Your task to perform on an android device: see sites visited before in the chrome app Image 0: 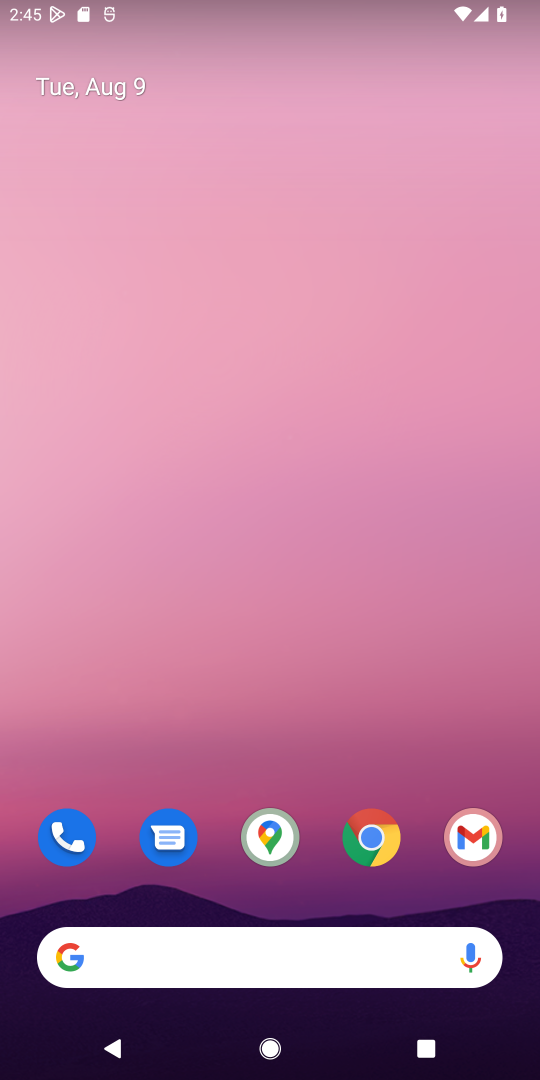
Step 0: drag from (300, 838) to (294, 356)
Your task to perform on an android device: see sites visited before in the chrome app Image 1: 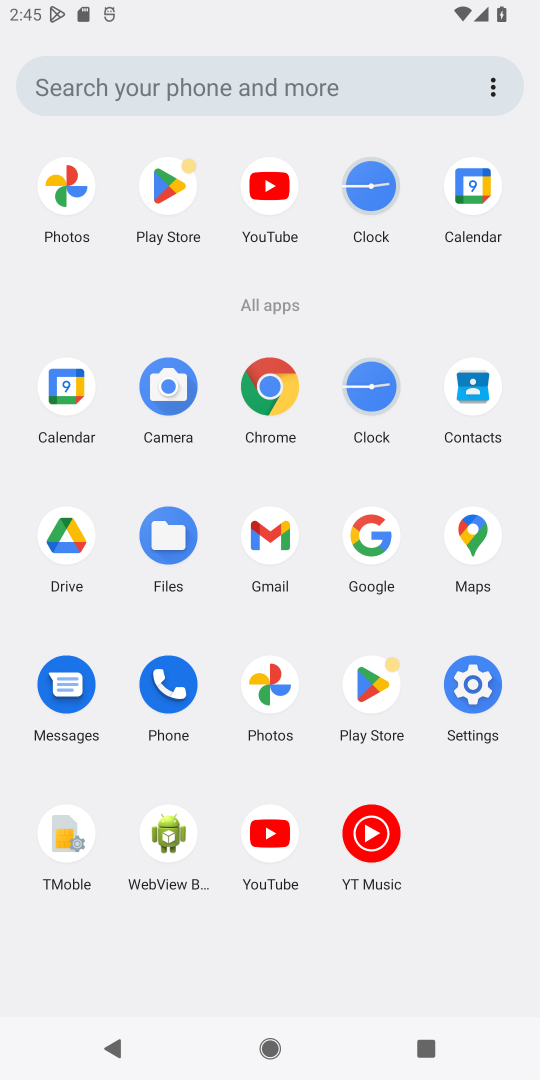
Step 1: click (267, 414)
Your task to perform on an android device: see sites visited before in the chrome app Image 2: 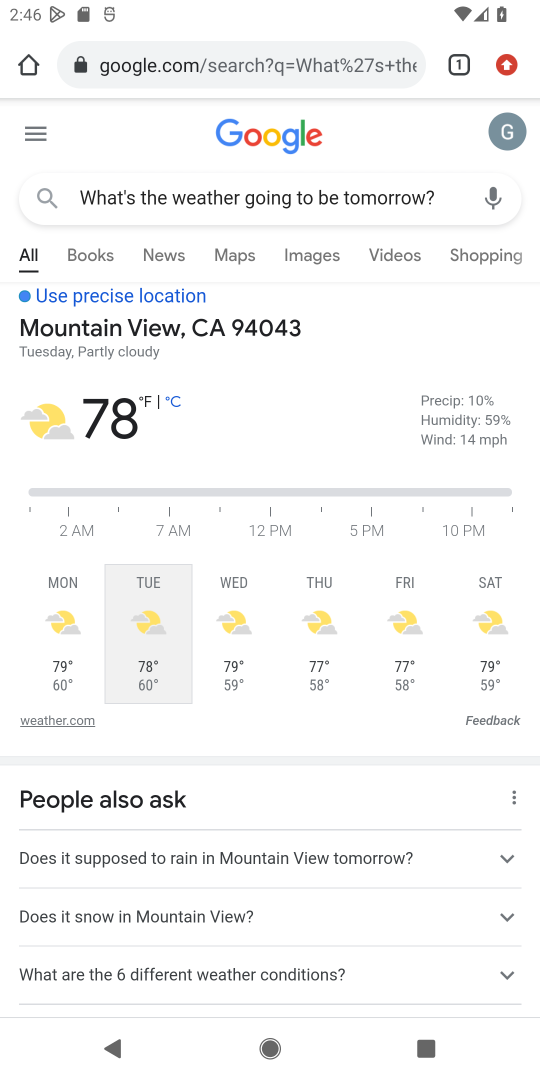
Step 2: click (505, 67)
Your task to perform on an android device: see sites visited before in the chrome app Image 3: 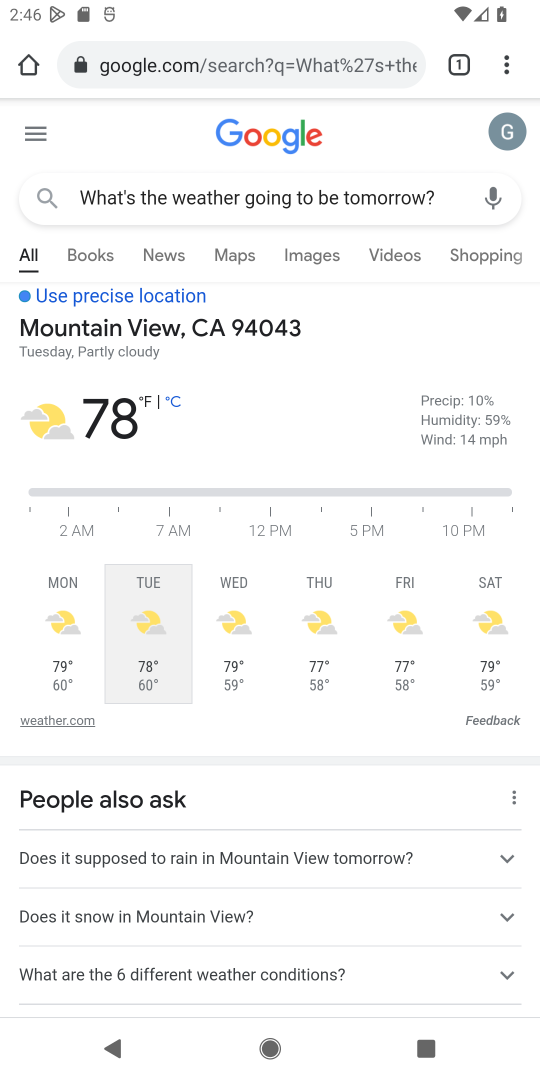
Step 3: click (505, 67)
Your task to perform on an android device: see sites visited before in the chrome app Image 4: 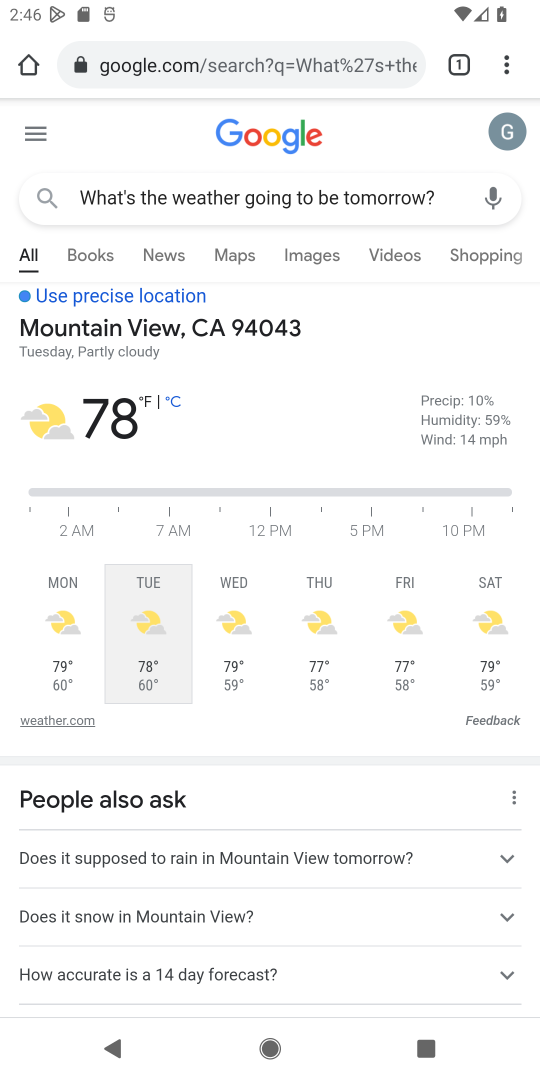
Step 4: click (505, 67)
Your task to perform on an android device: see sites visited before in the chrome app Image 5: 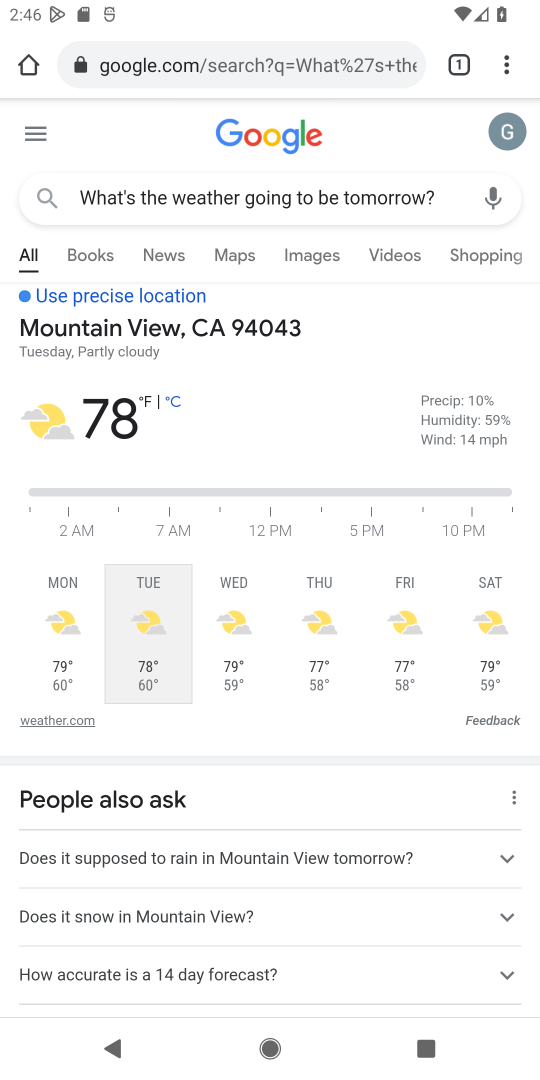
Step 5: click (505, 67)
Your task to perform on an android device: see sites visited before in the chrome app Image 6: 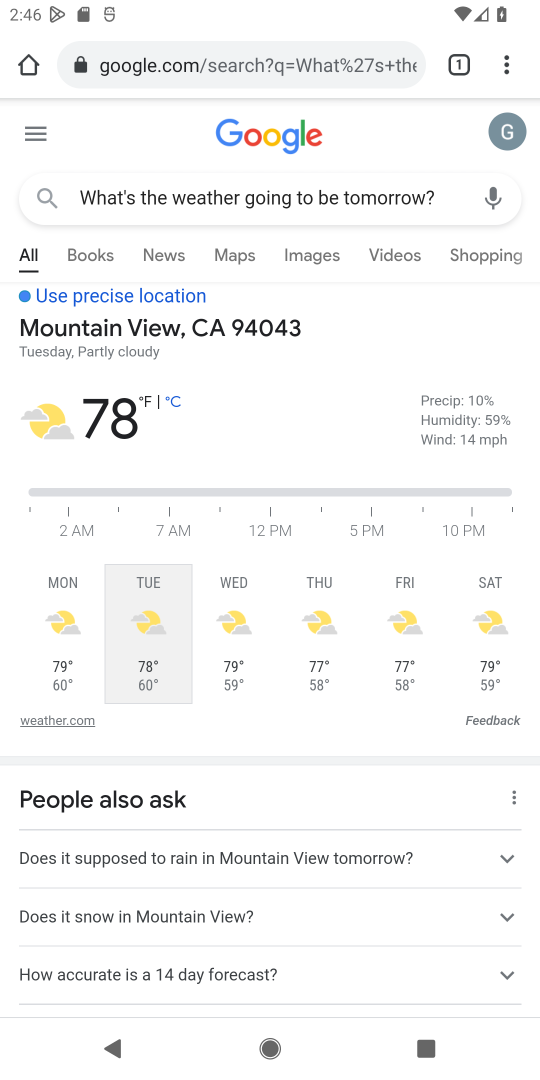
Step 6: click (515, 62)
Your task to perform on an android device: see sites visited before in the chrome app Image 7: 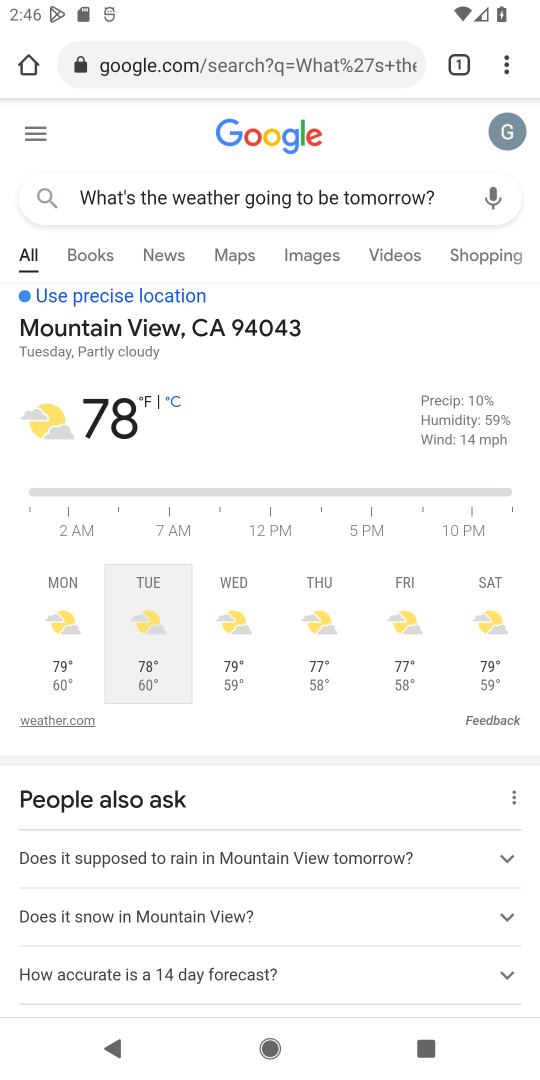
Step 7: click (500, 54)
Your task to perform on an android device: see sites visited before in the chrome app Image 8: 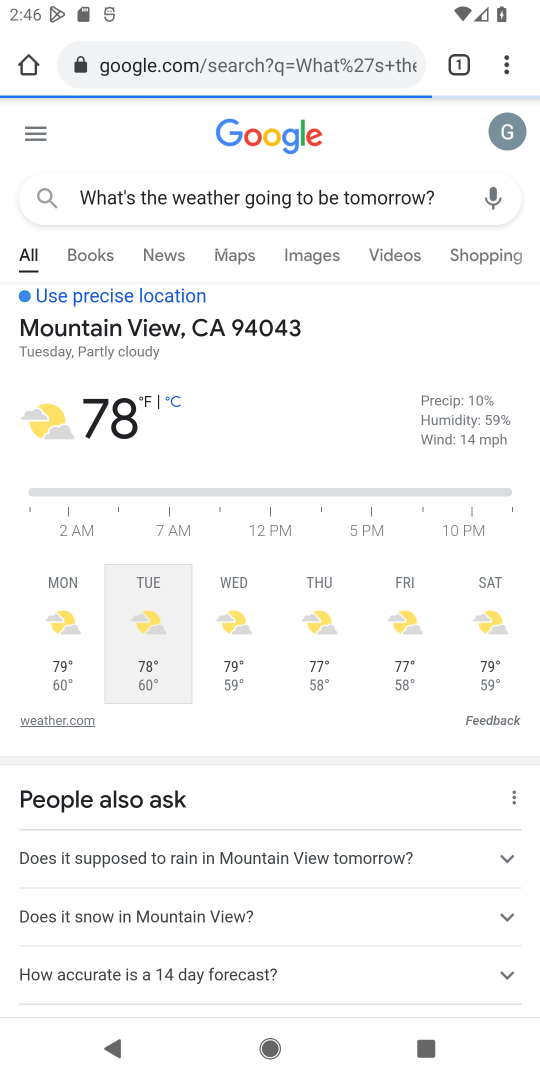
Step 8: click (500, 54)
Your task to perform on an android device: see sites visited before in the chrome app Image 9: 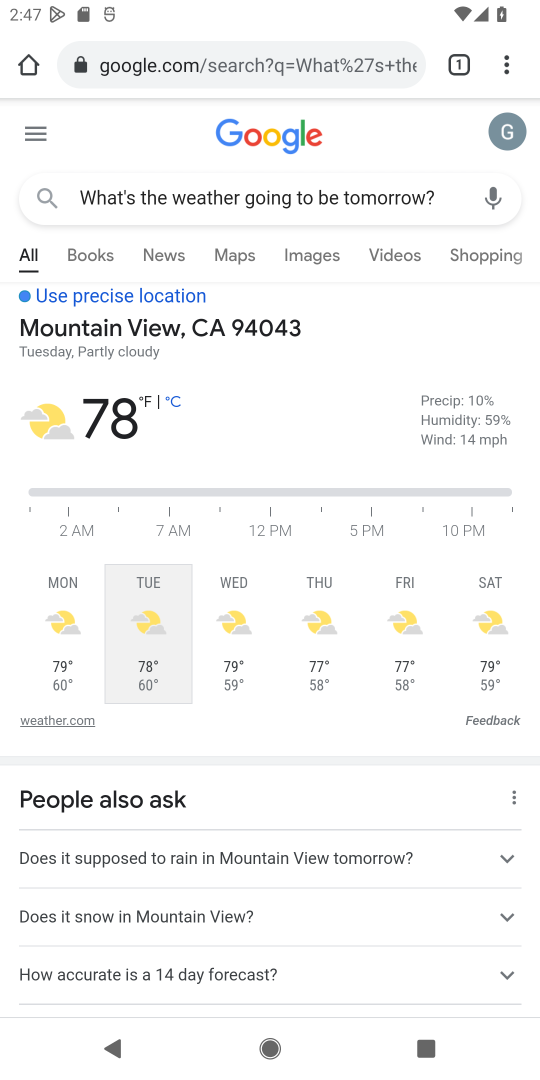
Step 9: click (508, 59)
Your task to perform on an android device: see sites visited before in the chrome app Image 10: 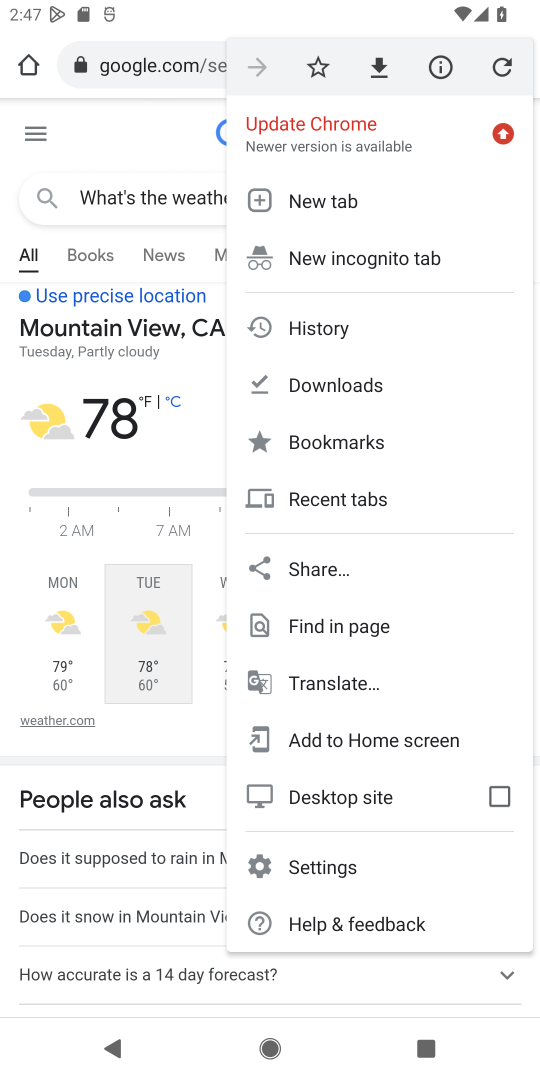
Step 10: click (311, 305)
Your task to perform on an android device: see sites visited before in the chrome app Image 11: 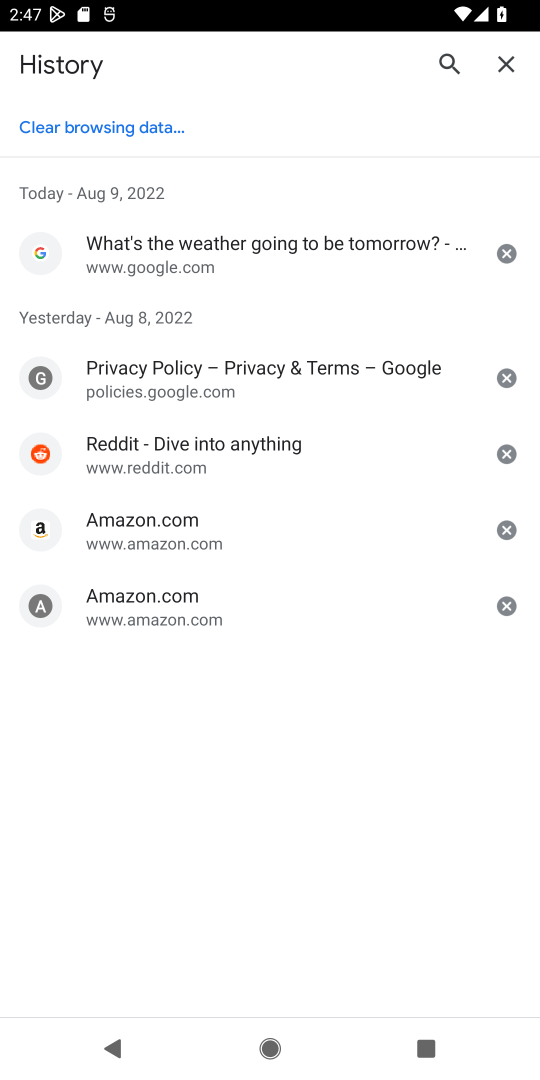
Step 11: task complete